Your task to perform on an android device: turn off smart reply in the gmail app Image 0: 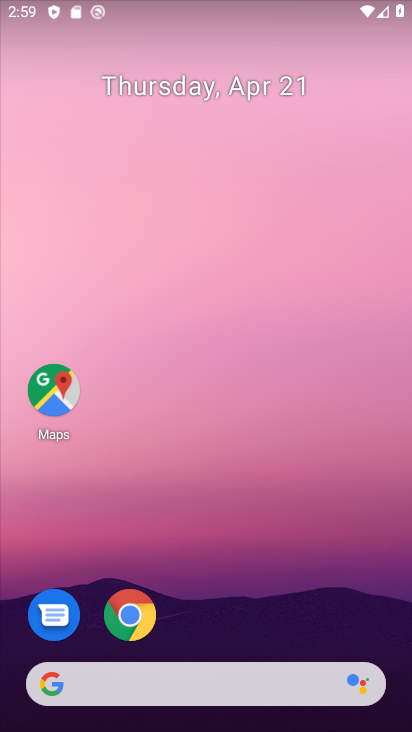
Step 0: click (232, 117)
Your task to perform on an android device: turn off smart reply in the gmail app Image 1: 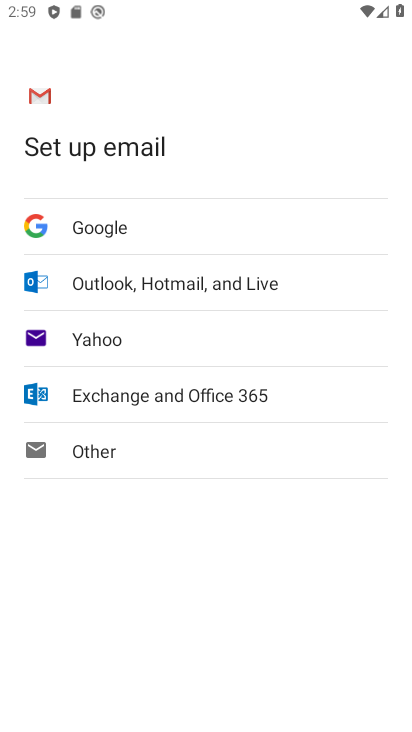
Step 1: press home button
Your task to perform on an android device: turn off smart reply in the gmail app Image 2: 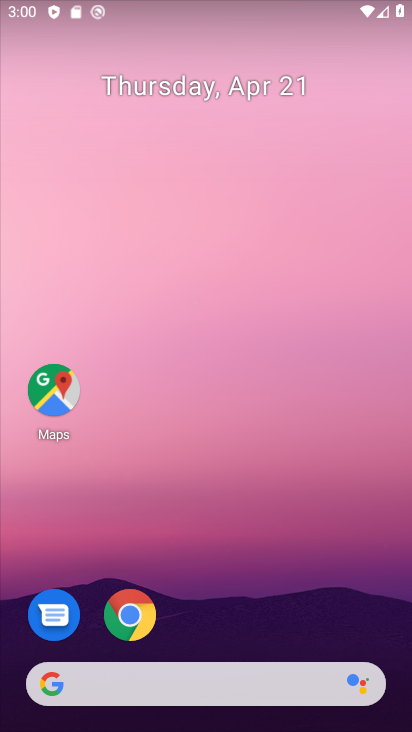
Step 2: drag from (210, 629) to (224, 101)
Your task to perform on an android device: turn off smart reply in the gmail app Image 3: 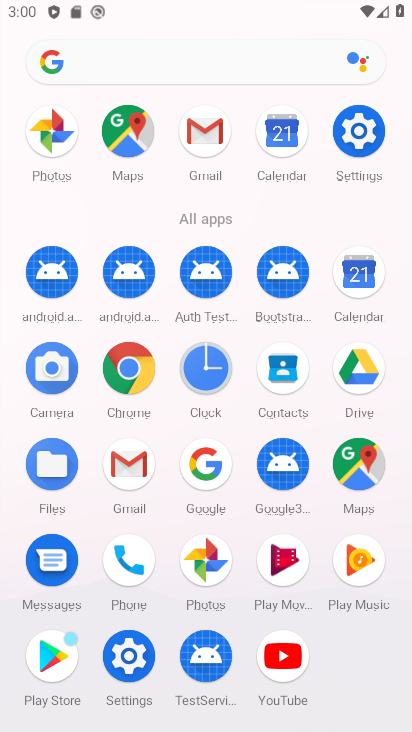
Step 3: click (127, 457)
Your task to perform on an android device: turn off smart reply in the gmail app Image 4: 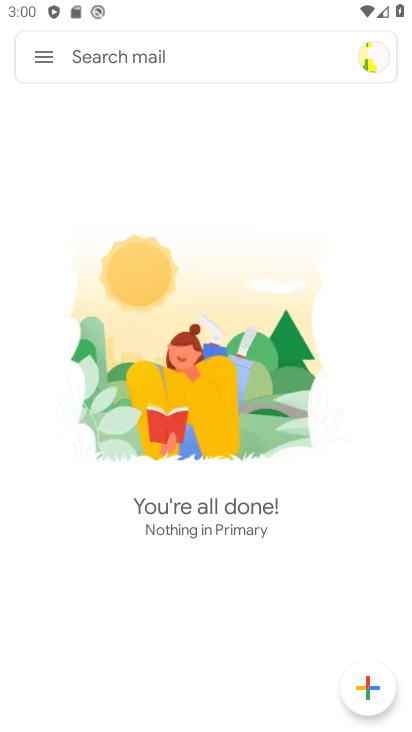
Step 4: click (42, 51)
Your task to perform on an android device: turn off smart reply in the gmail app Image 5: 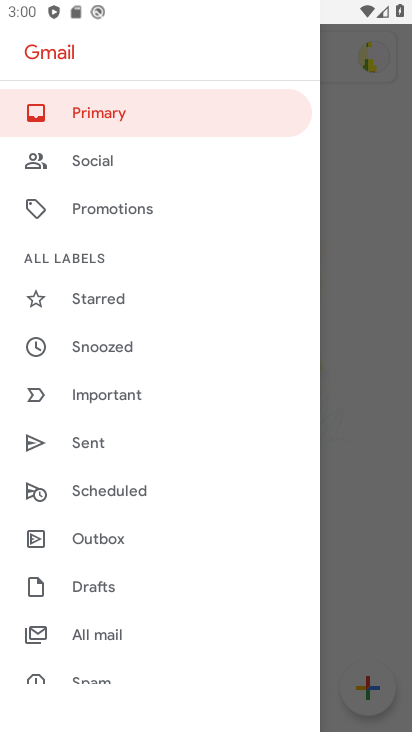
Step 5: drag from (128, 608) to (141, 108)
Your task to perform on an android device: turn off smart reply in the gmail app Image 6: 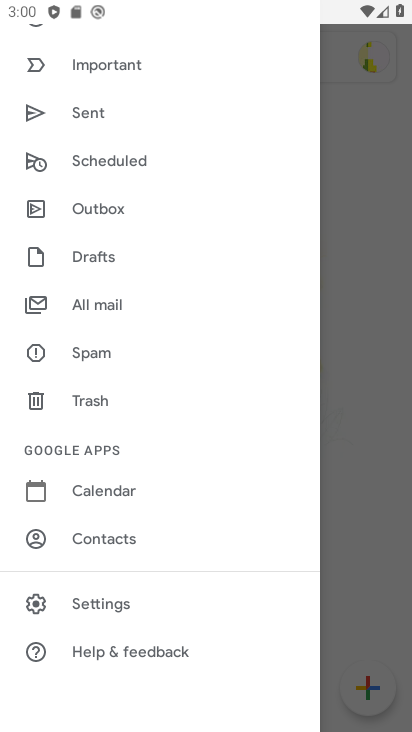
Step 6: click (133, 596)
Your task to perform on an android device: turn off smart reply in the gmail app Image 7: 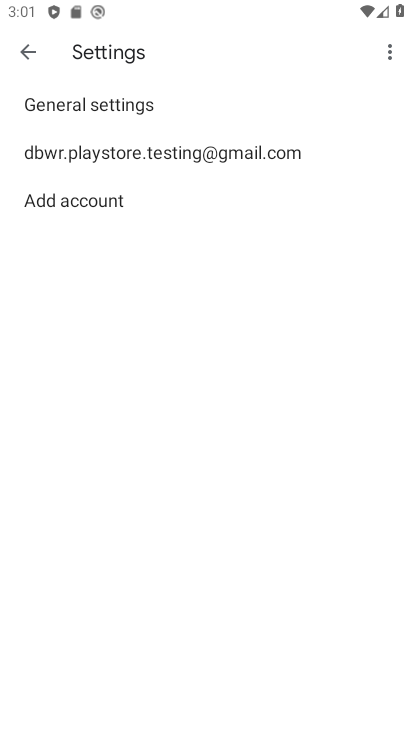
Step 7: click (189, 151)
Your task to perform on an android device: turn off smart reply in the gmail app Image 8: 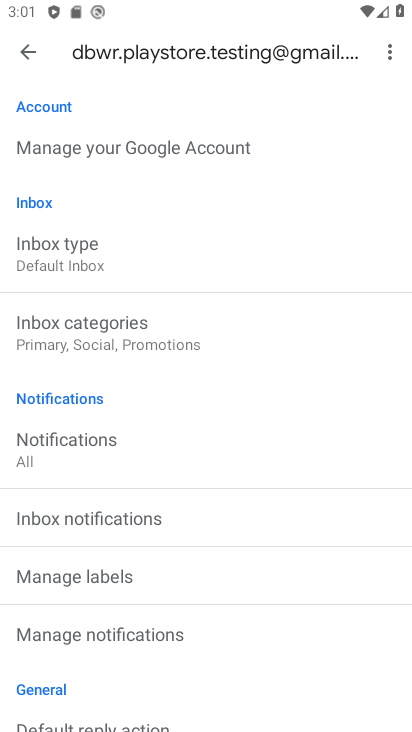
Step 8: drag from (236, 636) to (245, 136)
Your task to perform on an android device: turn off smart reply in the gmail app Image 9: 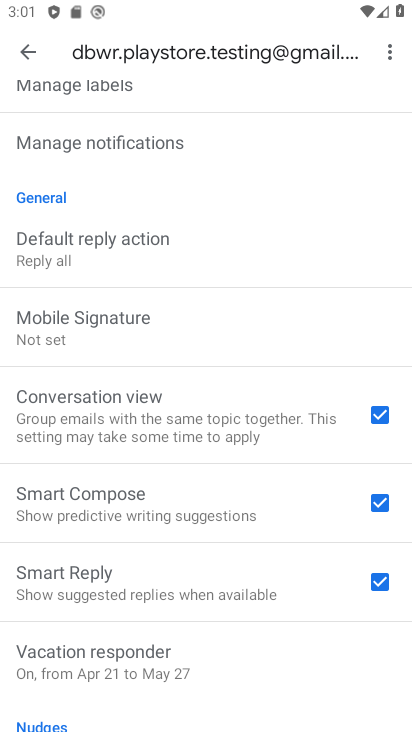
Step 9: click (381, 574)
Your task to perform on an android device: turn off smart reply in the gmail app Image 10: 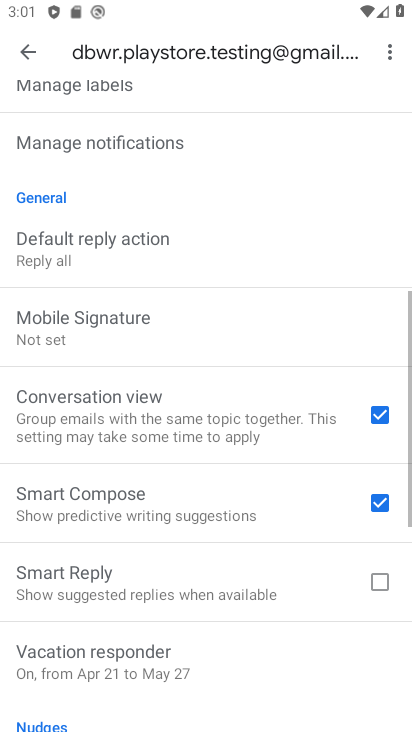
Step 10: task complete